Your task to perform on an android device: Play the last video I watched on Youtube Image 0: 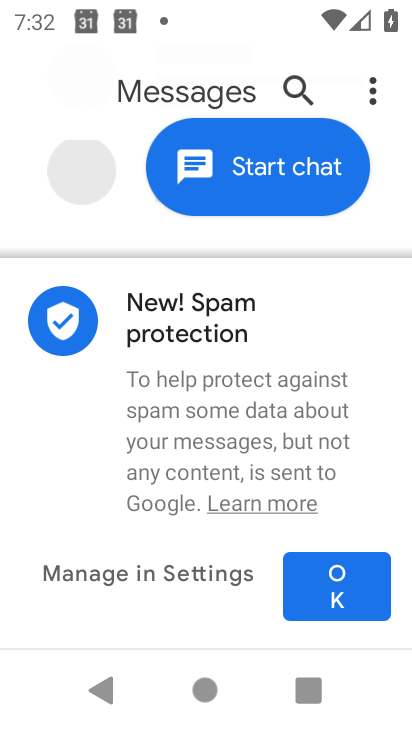
Step 0: drag from (382, 669) to (375, 501)
Your task to perform on an android device: Play the last video I watched on Youtube Image 1: 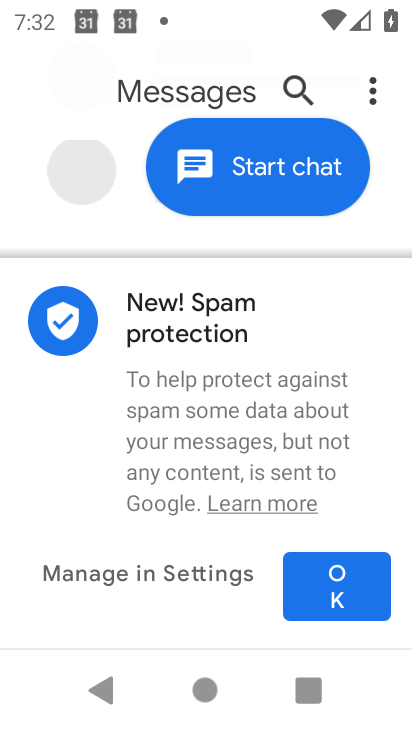
Step 1: press back button
Your task to perform on an android device: Play the last video I watched on Youtube Image 2: 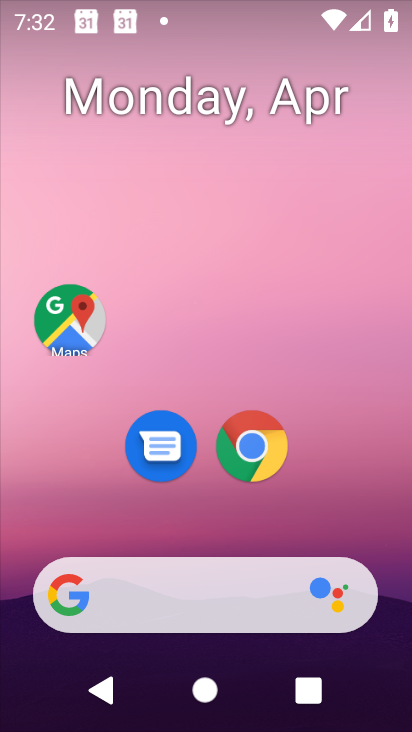
Step 2: drag from (401, 623) to (161, 61)
Your task to perform on an android device: Play the last video I watched on Youtube Image 3: 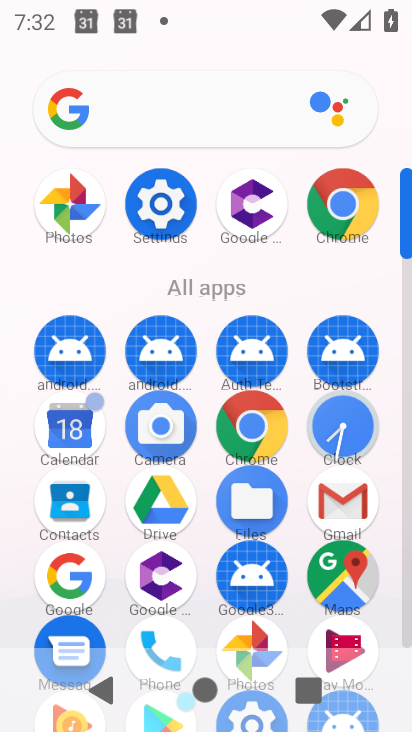
Step 3: drag from (7, 582) to (0, 356)
Your task to perform on an android device: Play the last video I watched on Youtube Image 4: 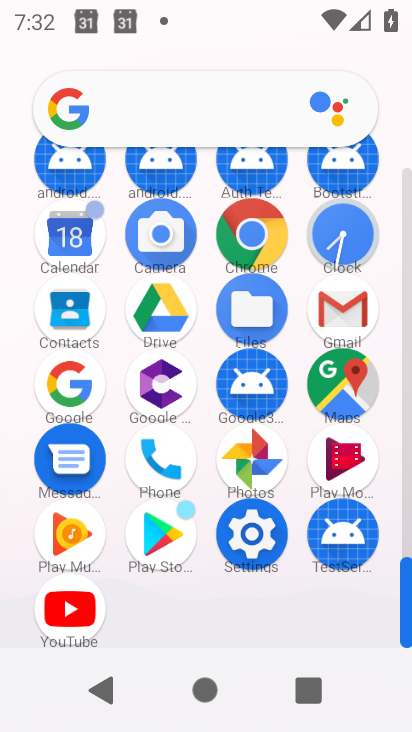
Step 4: click (65, 612)
Your task to perform on an android device: Play the last video I watched on Youtube Image 5: 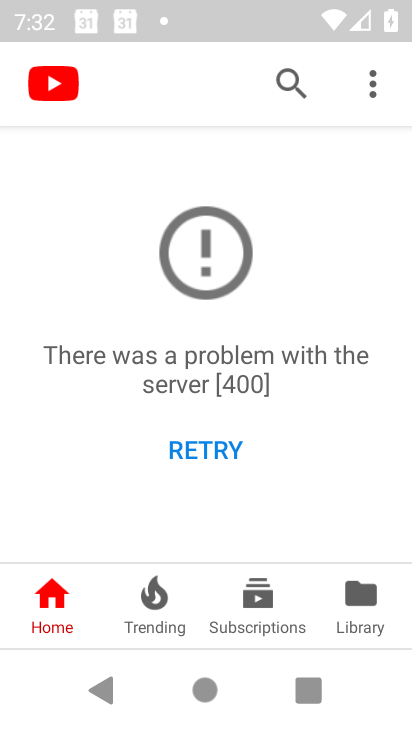
Step 5: click (355, 603)
Your task to perform on an android device: Play the last video I watched on Youtube Image 6: 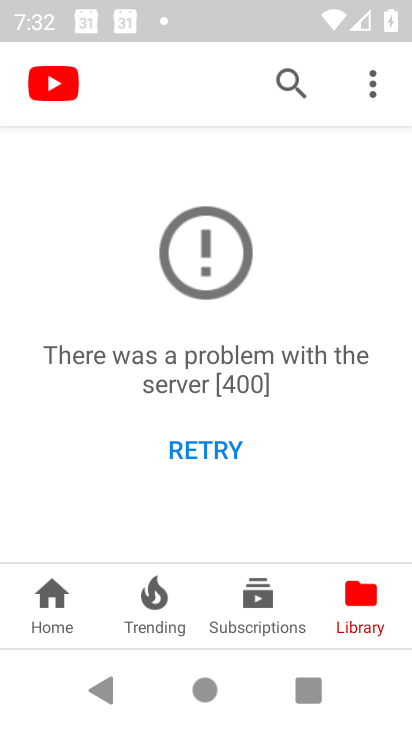
Step 6: click (267, 604)
Your task to perform on an android device: Play the last video I watched on Youtube Image 7: 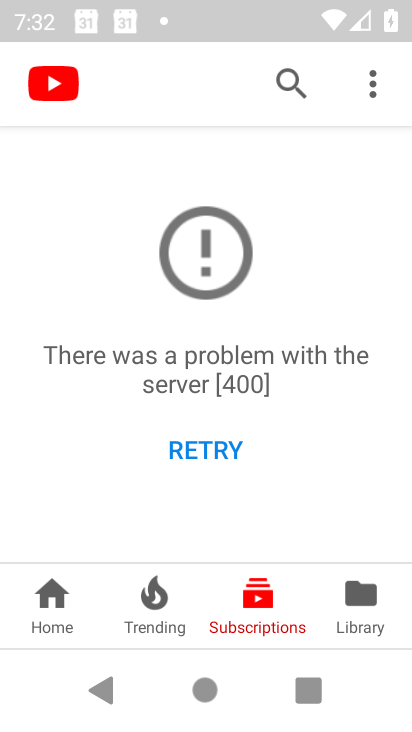
Step 7: click (216, 440)
Your task to perform on an android device: Play the last video I watched on Youtube Image 8: 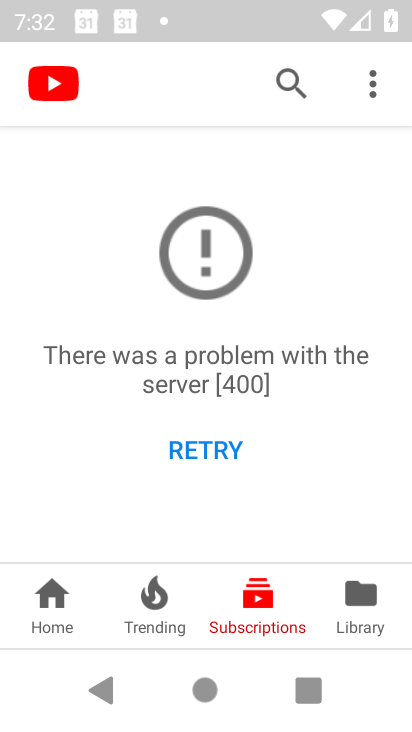
Step 8: click (216, 440)
Your task to perform on an android device: Play the last video I watched on Youtube Image 9: 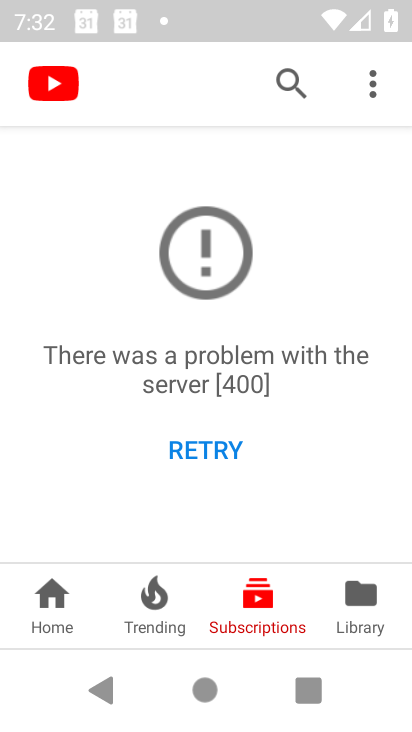
Step 9: click (161, 604)
Your task to perform on an android device: Play the last video I watched on Youtube Image 10: 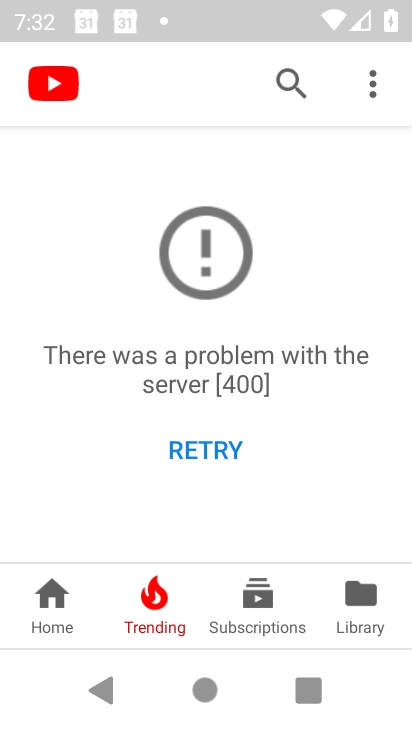
Step 10: click (55, 592)
Your task to perform on an android device: Play the last video I watched on Youtube Image 11: 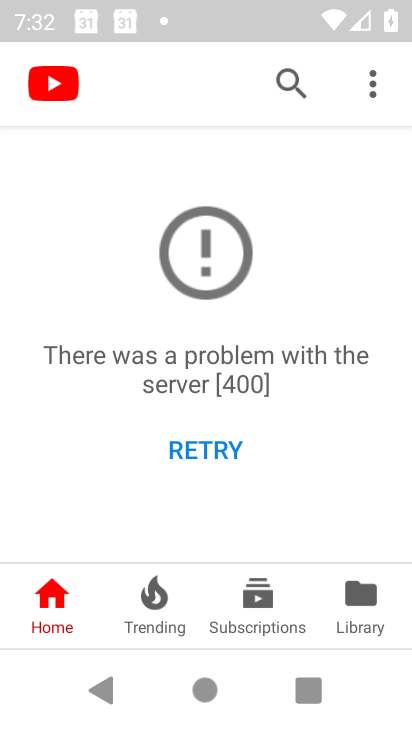
Step 11: drag from (263, 216) to (285, 531)
Your task to perform on an android device: Play the last video I watched on Youtube Image 12: 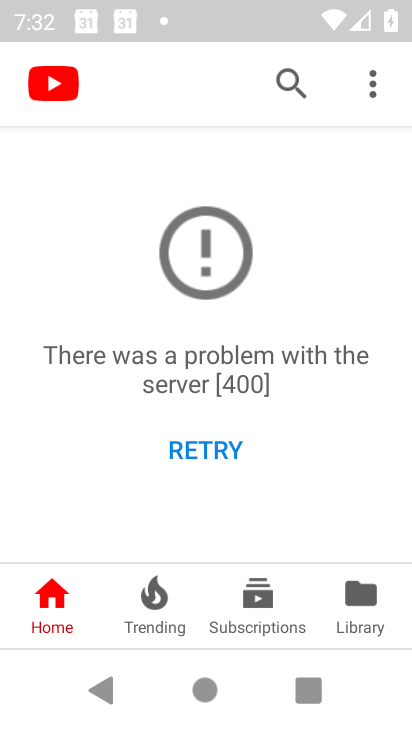
Step 12: drag from (227, 248) to (230, 443)
Your task to perform on an android device: Play the last video I watched on Youtube Image 13: 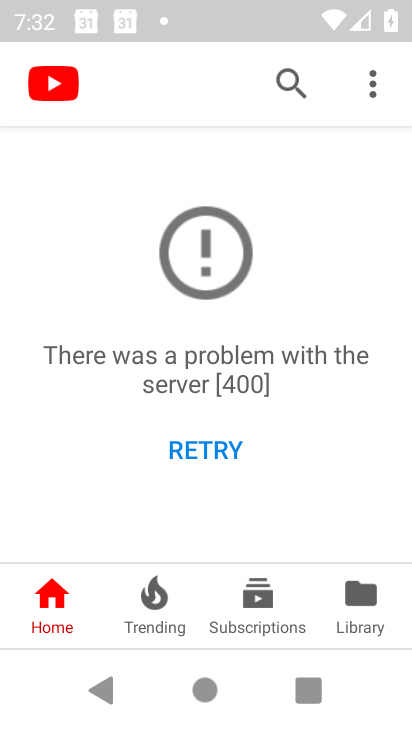
Step 13: click (243, 614)
Your task to perform on an android device: Play the last video I watched on Youtube Image 14: 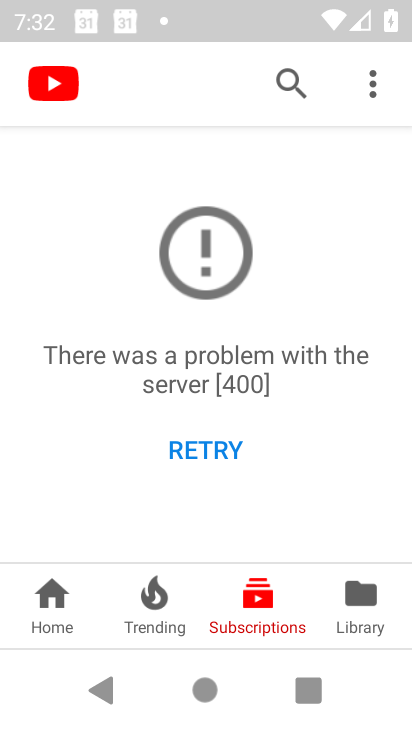
Step 14: click (129, 609)
Your task to perform on an android device: Play the last video I watched on Youtube Image 15: 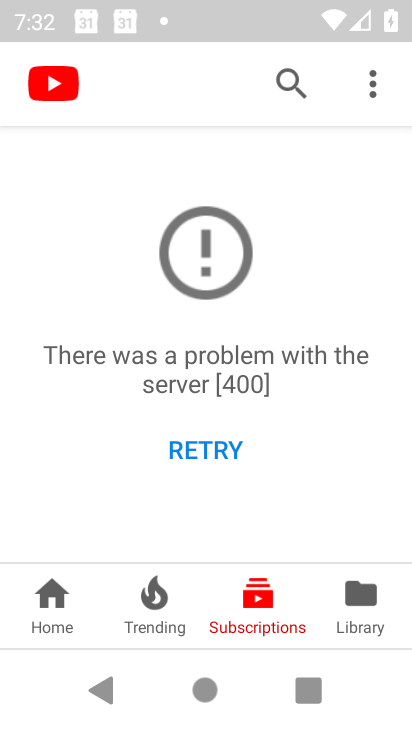
Step 15: click (30, 605)
Your task to perform on an android device: Play the last video I watched on Youtube Image 16: 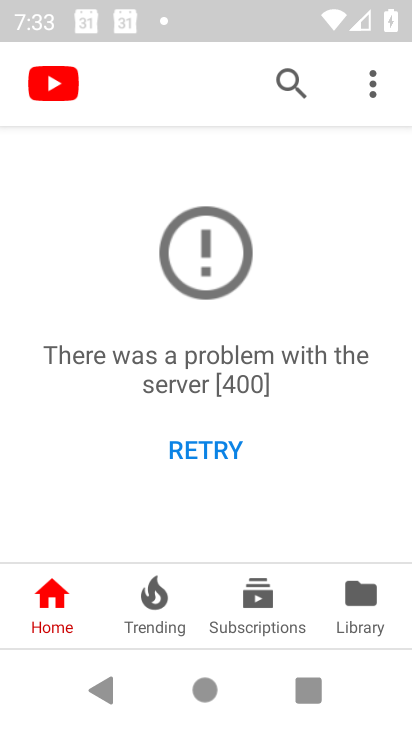
Step 16: click (135, 599)
Your task to perform on an android device: Play the last video I watched on Youtube Image 17: 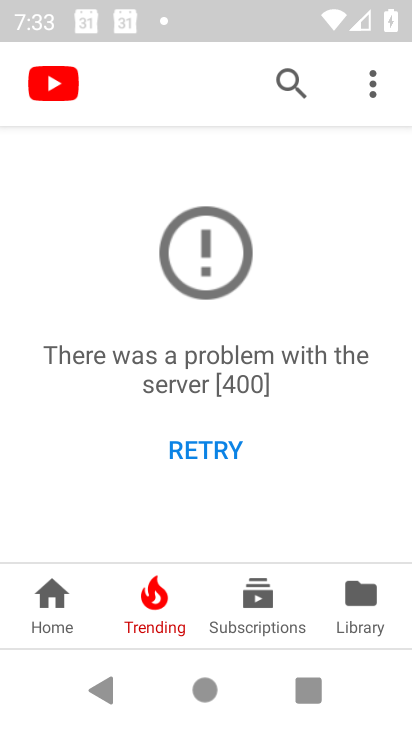
Step 17: click (254, 604)
Your task to perform on an android device: Play the last video I watched on Youtube Image 18: 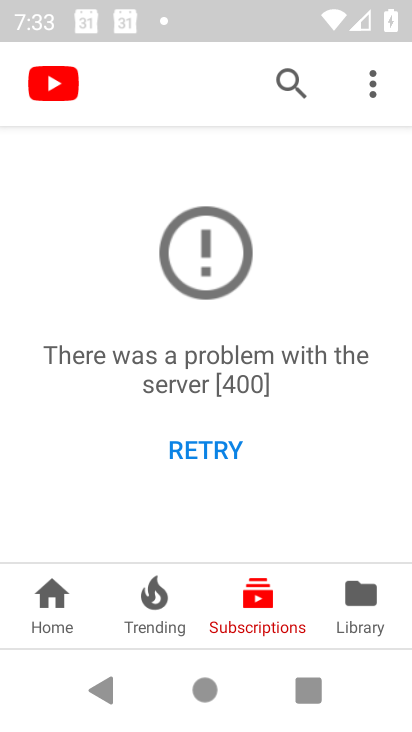
Step 18: click (359, 606)
Your task to perform on an android device: Play the last video I watched on Youtube Image 19: 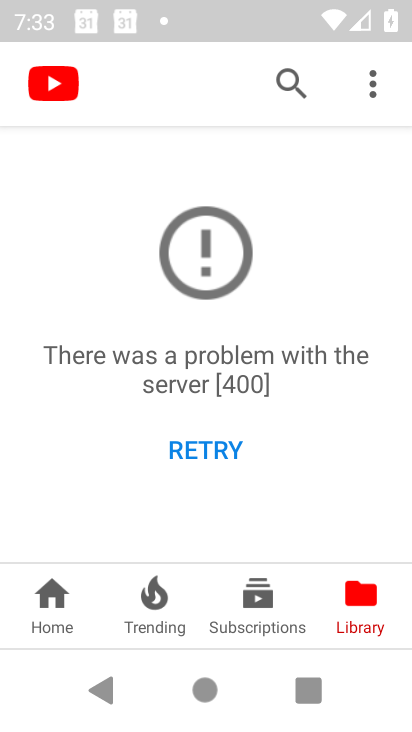
Step 19: click (67, 615)
Your task to perform on an android device: Play the last video I watched on Youtube Image 20: 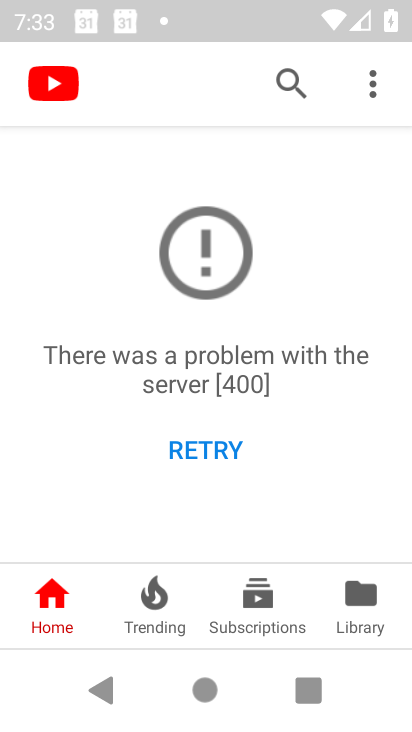
Step 20: task complete